Your task to perform on an android device: Open privacy settings Image 0: 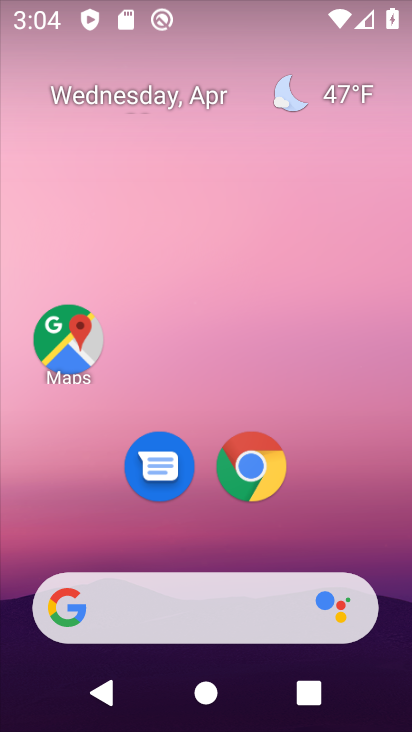
Step 0: drag from (324, 490) to (129, 153)
Your task to perform on an android device: Open privacy settings Image 1: 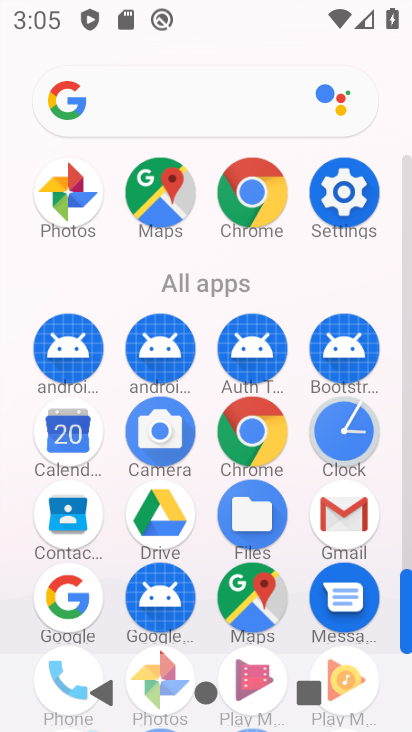
Step 1: click (250, 198)
Your task to perform on an android device: Open privacy settings Image 2: 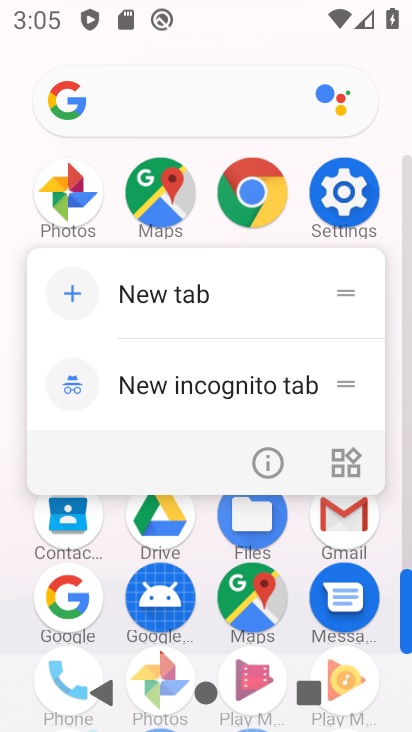
Step 2: click (250, 198)
Your task to perform on an android device: Open privacy settings Image 3: 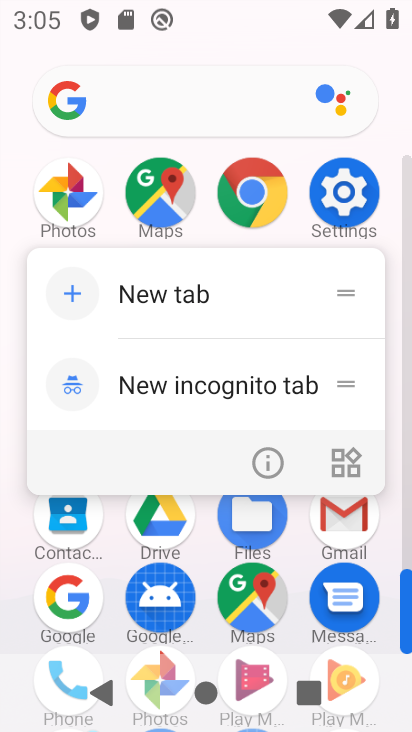
Step 3: click (247, 190)
Your task to perform on an android device: Open privacy settings Image 4: 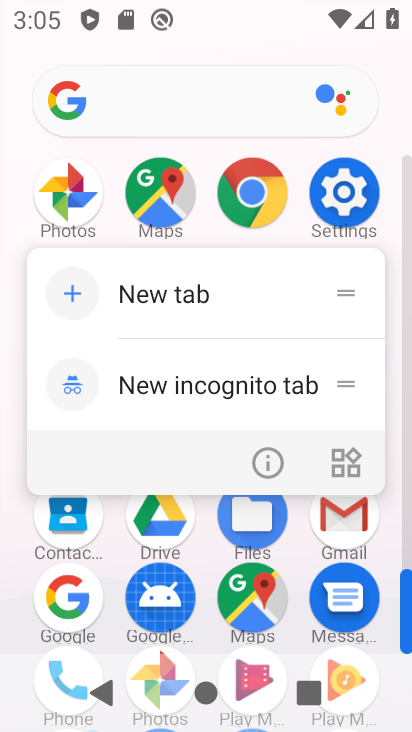
Step 4: click (247, 190)
Your task to perform on an android device: Open privacy settings Image 5: 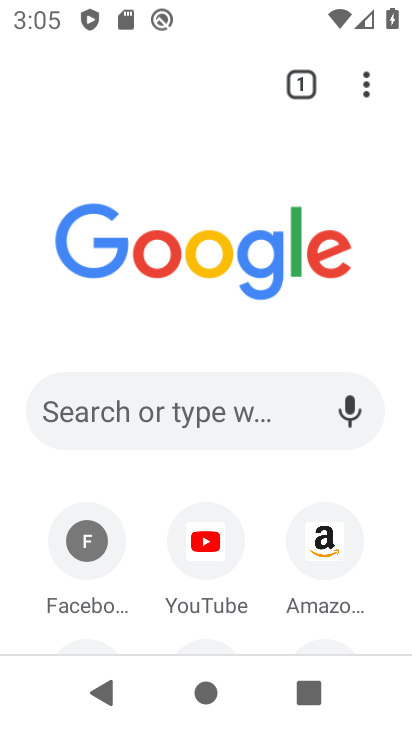
Step 5: drag from (365, 83) to (84, 513)
Your task to perform on an android device: Open privacy settings Image 6: 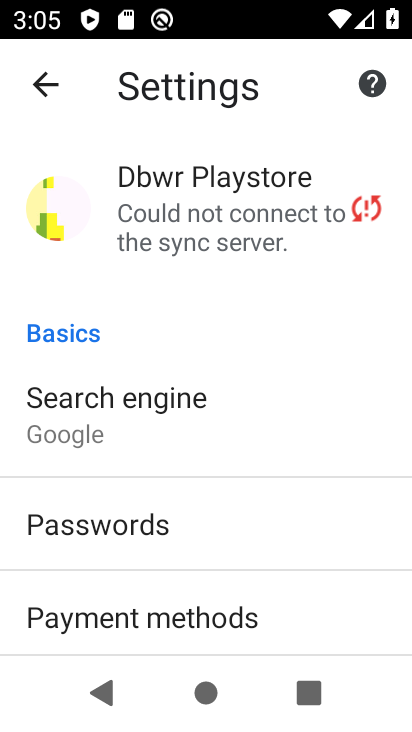
Step 6: drag from (192, 590) to (147, 185)
Your task to perform on an android device: Open privacy settings Image 7: 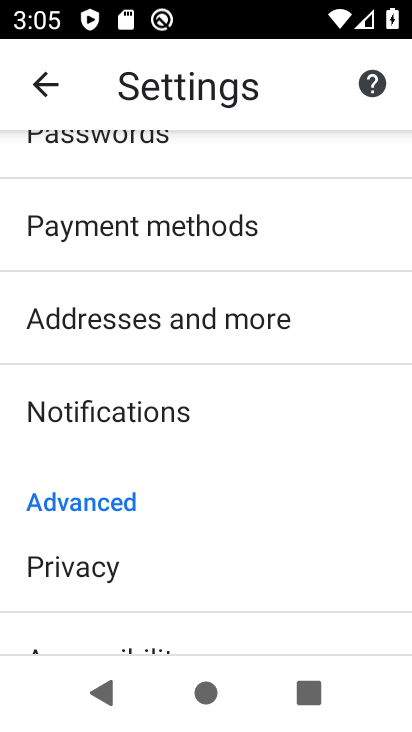
Step 7: click (86, 571)
Your task to perform on an android device: Open privacy settings Image 8: 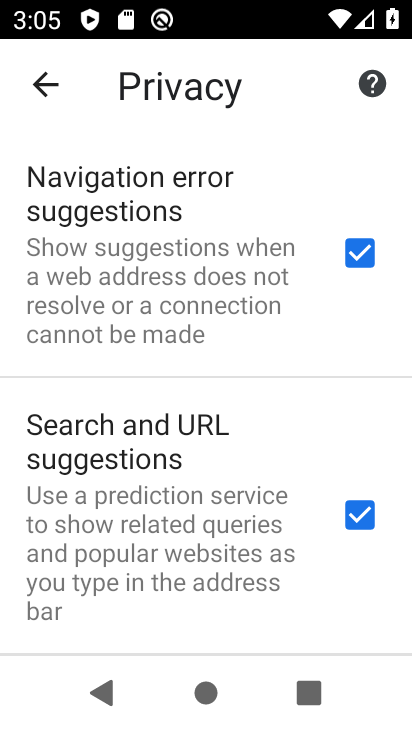
Step 8: task complete